Your task to perform on an android device: toggle priority inbox in the gmail app Image 0: 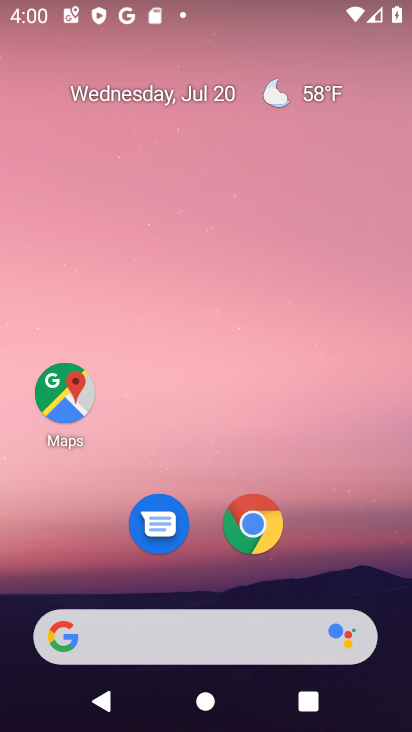
Step 0: drag from (321, 523) to (307, 33)
Your task to perform on an android device: toggle priority inbox in the gmail app Image 1: 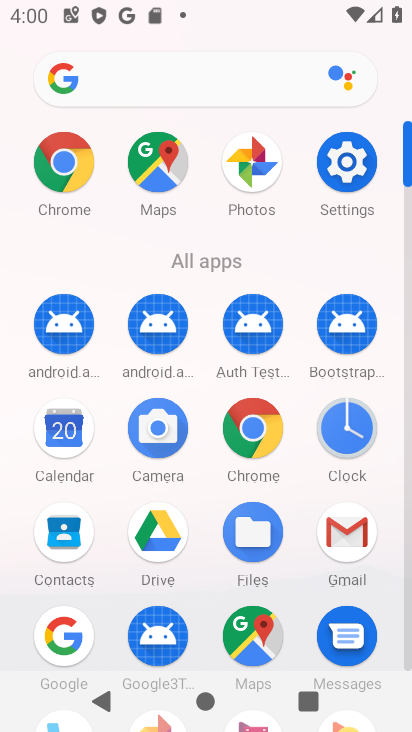
Step 1: click (341, 525)
Your task to perform on an android device: toggle priority inbox in the gmail app Image 2: 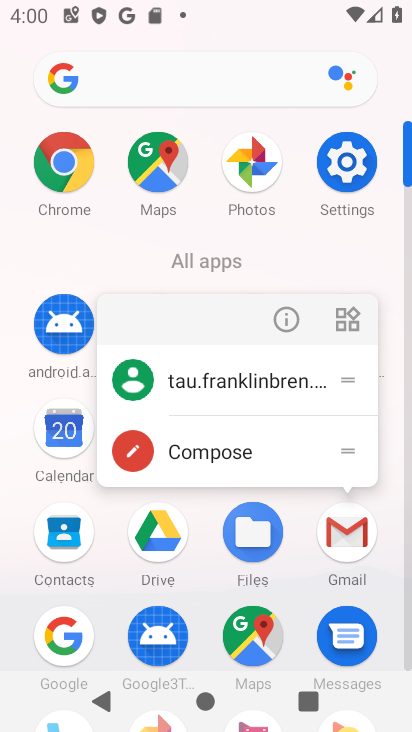
Step 2: click (341, 525)
Your task to perform on an android device: toggle priority inbox in the gmail app Image 3: 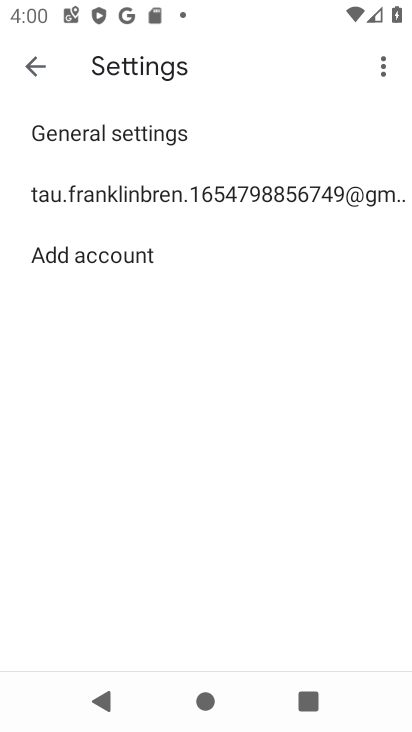
Step 3: click (256, 192)
Your task to perform on an android device: toggle priority inbox in the gmail app Image 4: 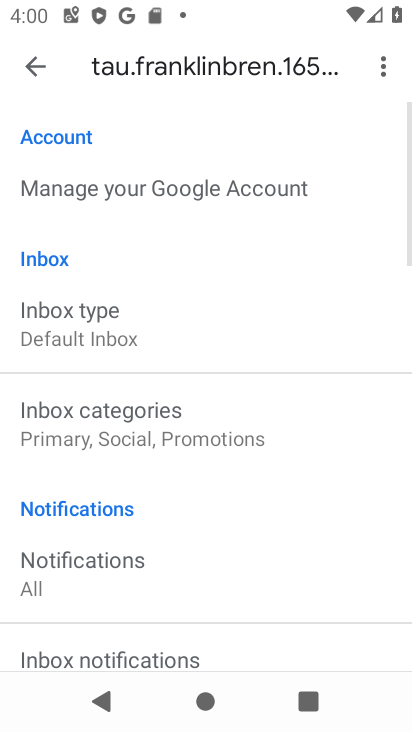
Step 4: click (113, 323)
Your task to perform on an android device: toggle priority inbox in the gmail app Image 5: 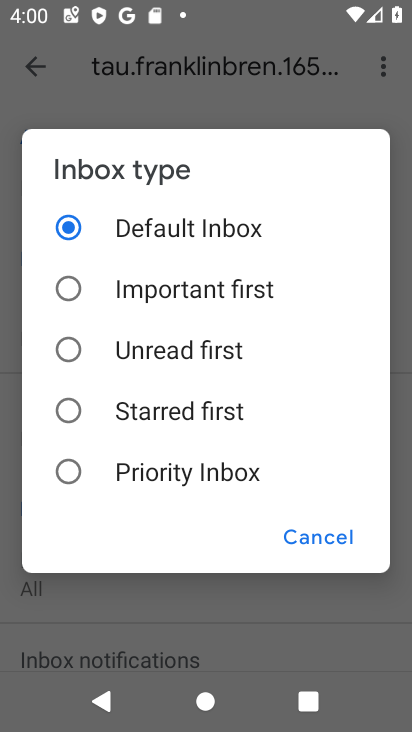
Step 5: click (61, 462)
Your task to perform on an android device: toggle priority inbox in the gmail app Image 6: 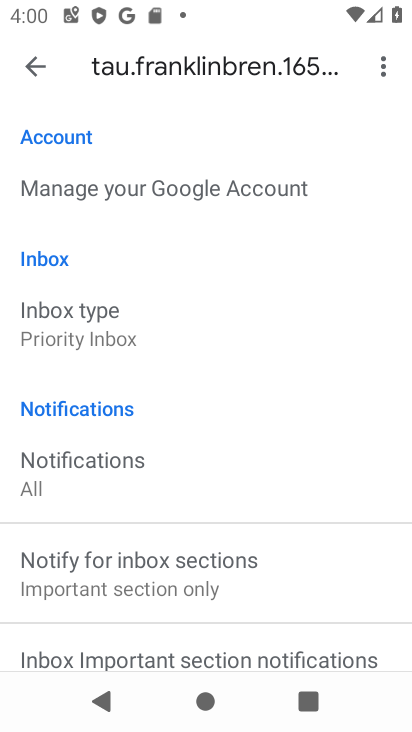
Step 6: task complete